Your task to perform on an android device: change text size in settings app Image 0: 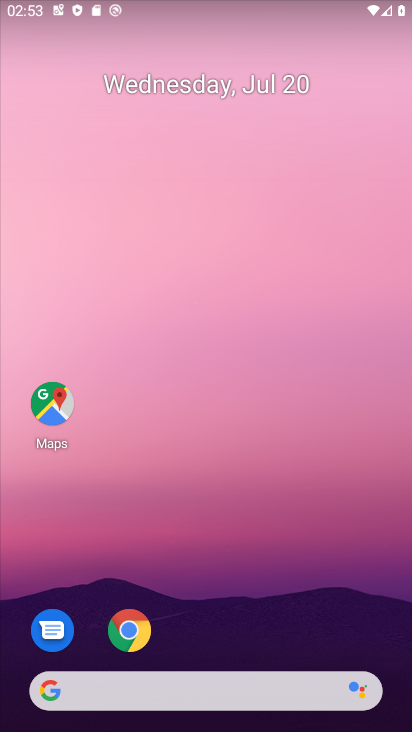
Step 0: press home button
Your task to perform on an android device: change text size in settings app Image 1: 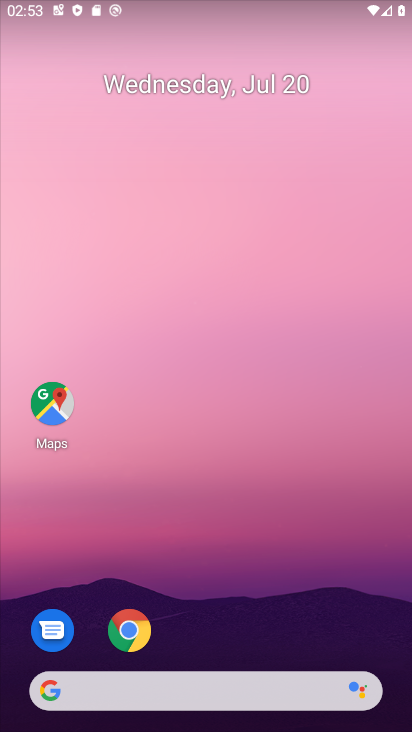
Step 1: drag from (362, 642) to (407, 147)
Your task to perform on an android device: change text size in settings app Image 2: 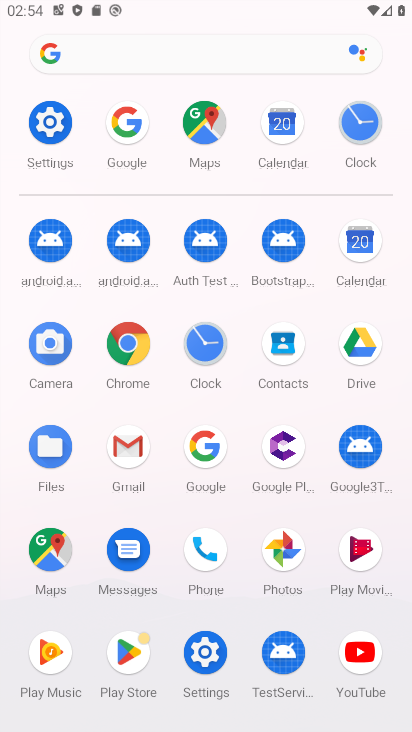
Step 2: click (59, 130)
Your task to perform on an android device: change text size in settings app Image 3: 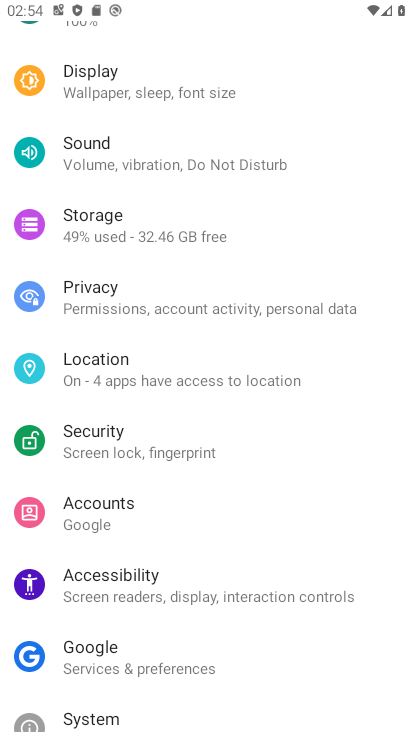
Step 3: drag from (358, 145) to (369, 237)
Your task to perform on an android device: change text size in settings app Image 4: 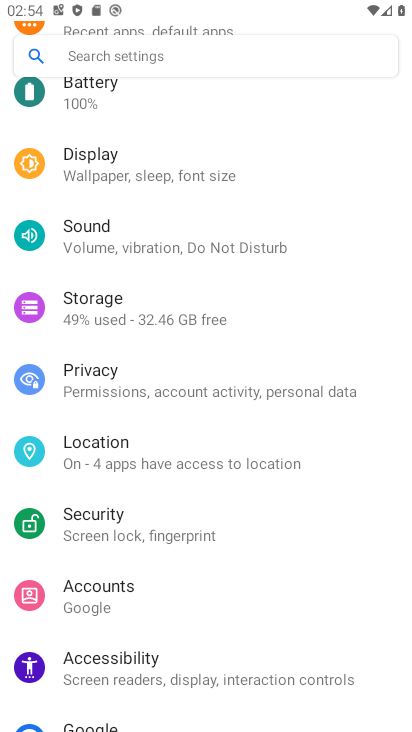
Step 4: drag from (368, 151) to (366, 253)
Your task to perform on an android device: change text size in settings app Image 5: 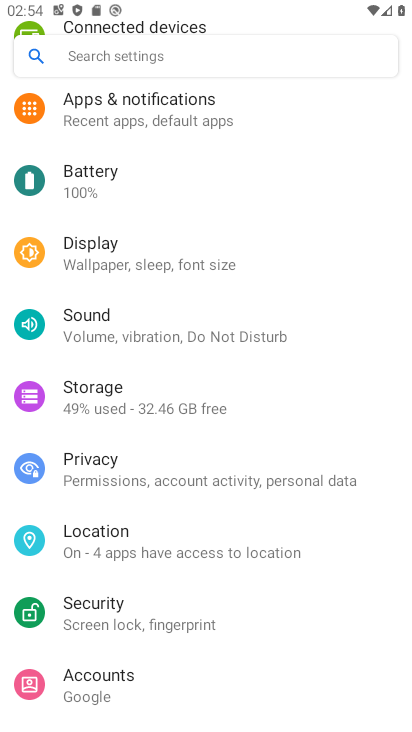
Step 5: drag from (365, 145) to (364, 267)
Your task to perform on an android device: change text size in settings app Image 6: 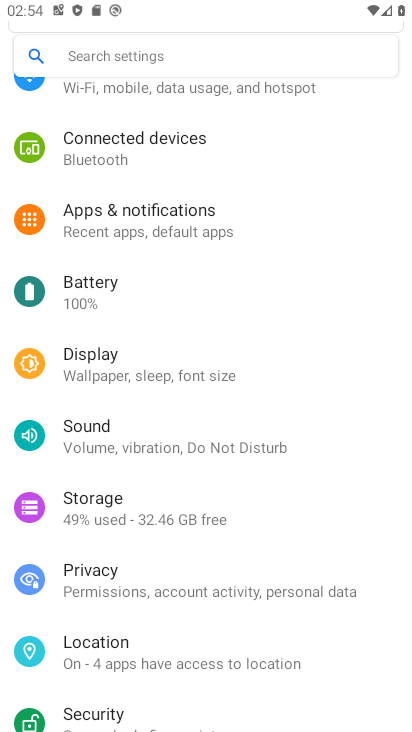
Step 6: drag from (365, 156) to (353, 292)
Your task to perform on an android device: change text size in settings app Image 7: 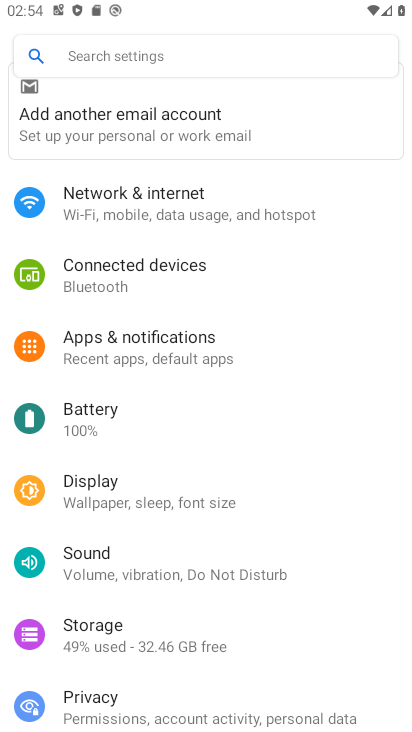
Step 7: click (256, 490)
Your task to perform on an android device: change text size in settings app Image 8: 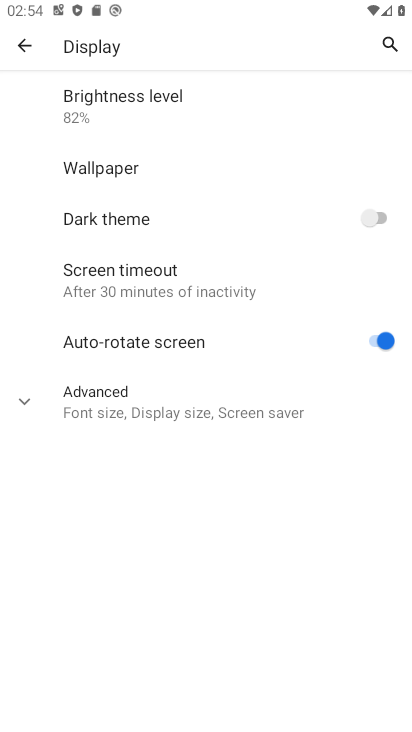
Step 8: click (212, 390)
Your task to perform on an android device: change text size in settings app Image 9: 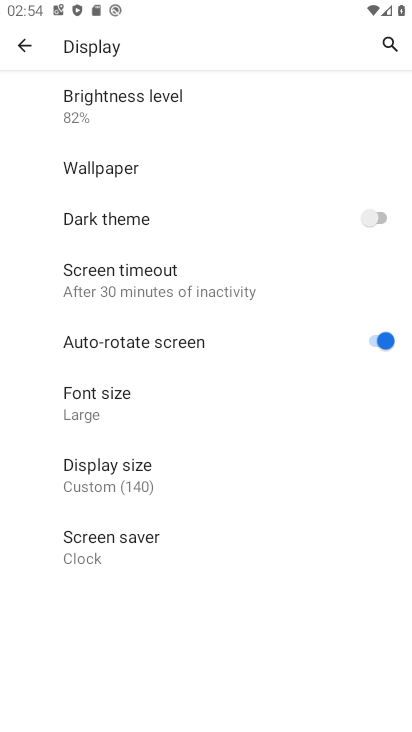
Step 9: click (160, 416)
Your task to perform on an android device: change text size in settings app Image 10: 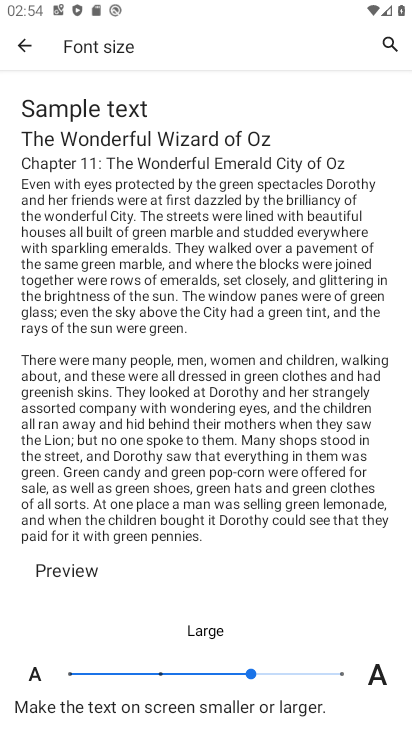
Step 10: click (338, 671)
Your task to perform on an android device: change text size in settings app Image 11: 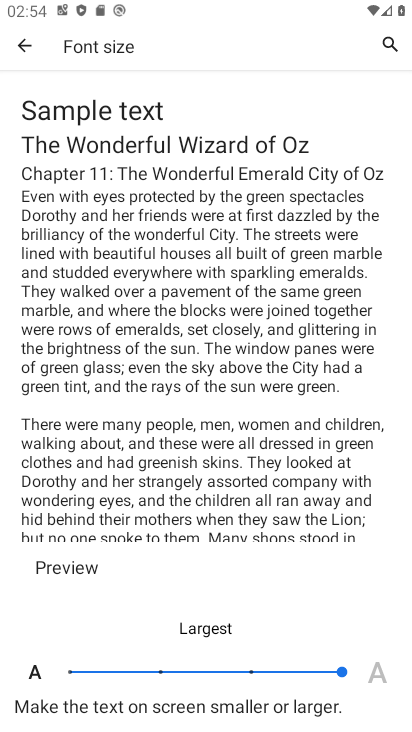
Step 11: task complete